Your task to perform on an android device: open the mobile data screen to see how much data has been used Image 0: 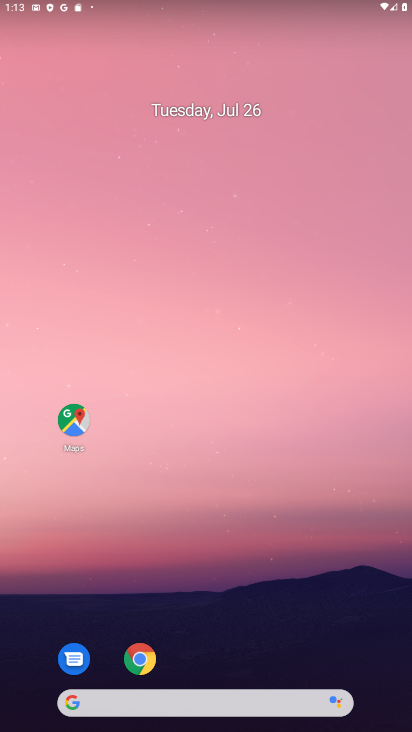
Step 0: drag from (212, 574) to (188, 106)
Your task to perform on an android device: open the mobile data screen to see how much data has been used Image 1: 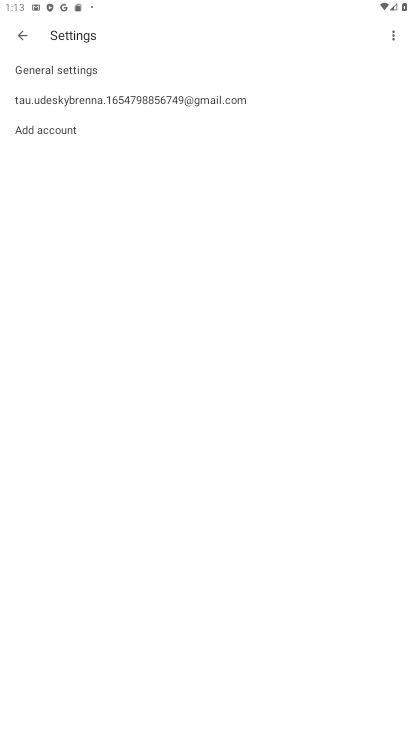
Step 1: press home button
Your task to perform on an android device: open the mobile data screen to see how much data has been used Image 2: 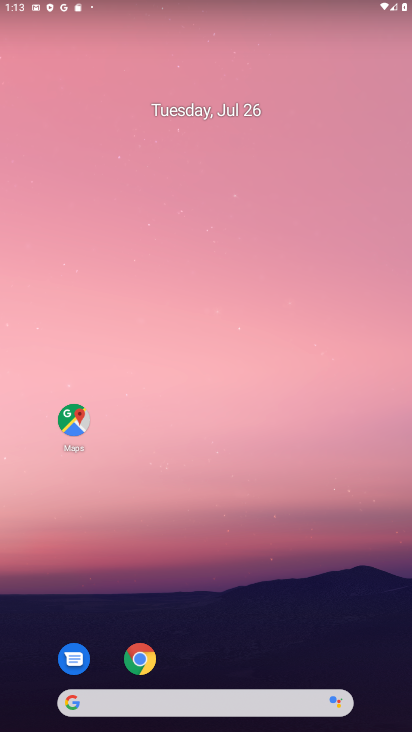
Step 2: drag from (263, 631) to (226, 35)
Your task to perform on an android device: open the mobile data screen to see how much data has been used Image 3: 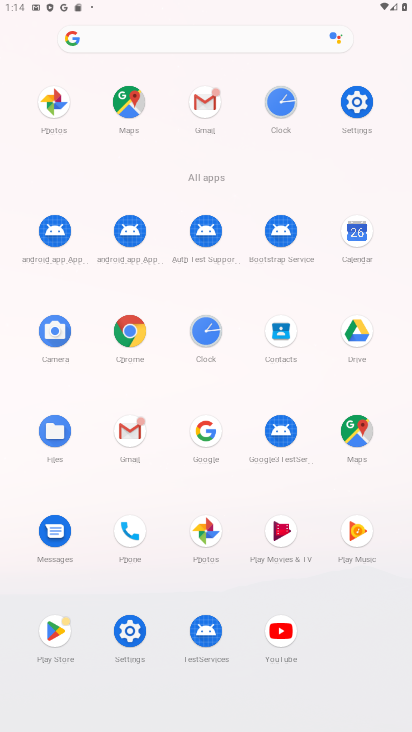
Step 3: click (358, 103)
Your task to perform on an android device: open the mobile data screen to see how much data has been used Image 4: 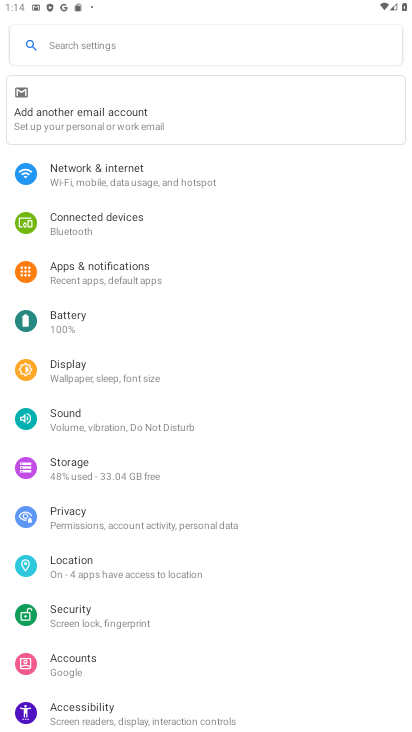
Step 4: click (103, 184)
Your task to perform on an android device: open the mobile data screen to see how much data has been used Image 5: 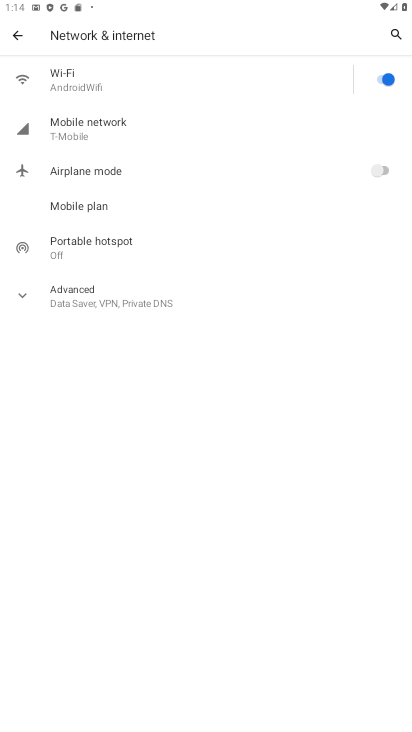
Step 5: click (93, 128)
Your task to perform on an android device: open the mobile data screen to see how much data has been used Image 6: 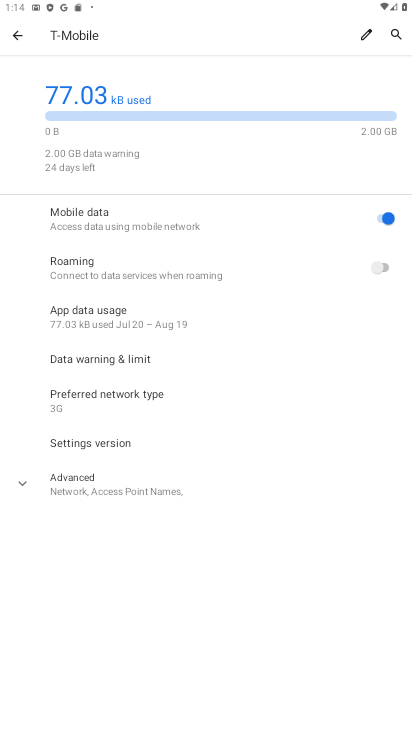
Step 6: click (90, 312)
Your task to perform on an android device: open the mobile data screen to see how much data has been used Image 7: 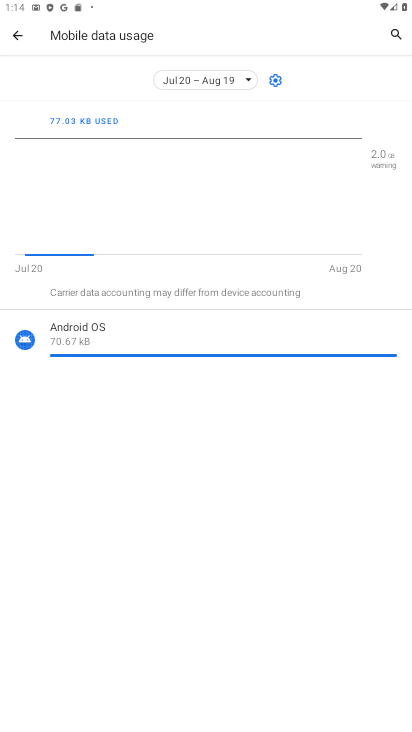
Step 7: task complete